Your task to perform on an android device: toggle sleep mode Image 0: 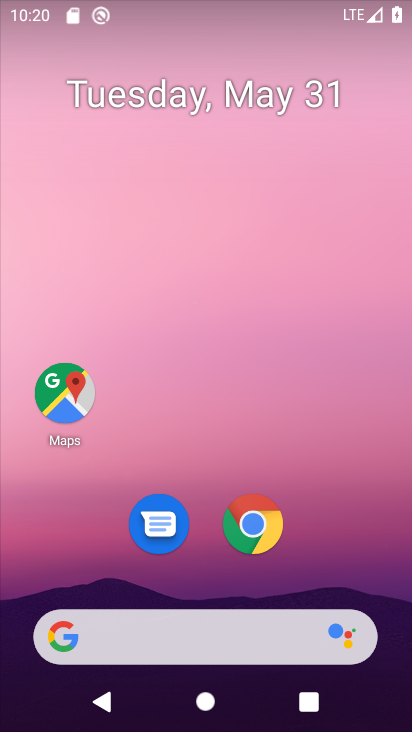
Step 0: drag from (212, 458) to (260, 0)
Your task to perform on an android device: toggle sleep mode Image 1: 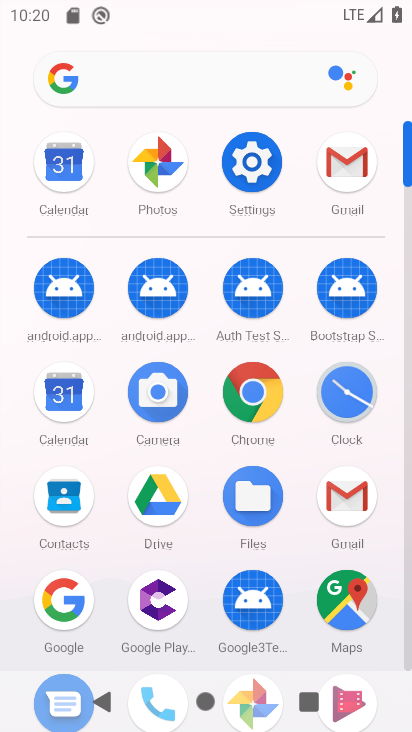
Step 1: click (250, 166)
Your task to perform on an android device: toggle sleep mode Image 2: 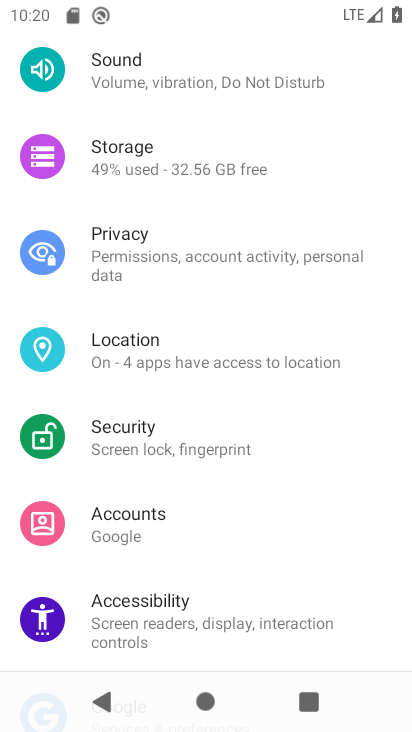
Step 2: drag from (209, 228) to (223, 616)
Your task to perform on an android device: toggle sleep mode Image 3: 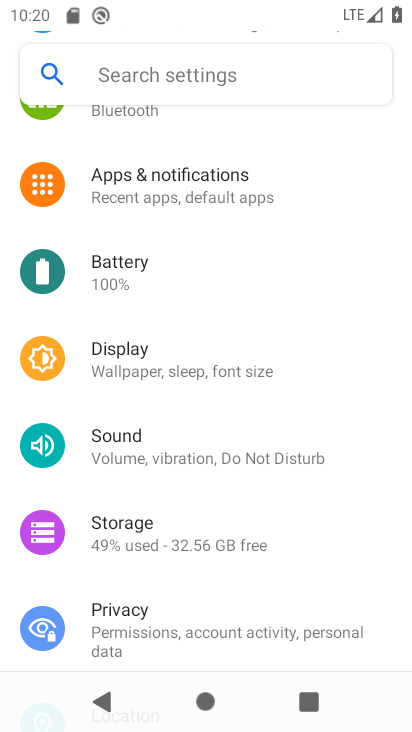
Step 3: drag from (208, 298) to (200, 577)
Your task to perform on an android device: toggle sleep mode Image 4: 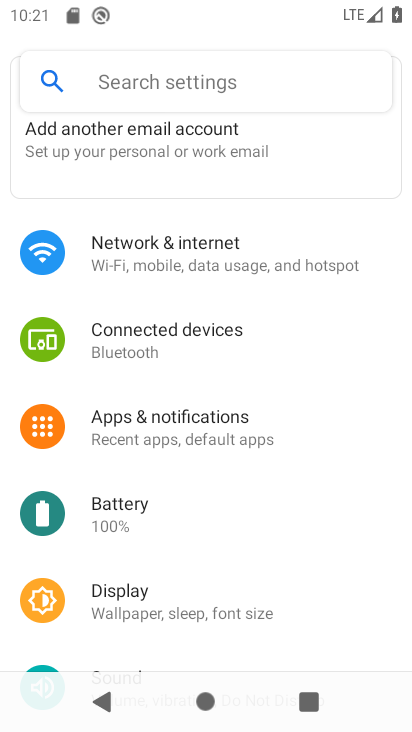
Step 4: drag from (205, 493) to (220, 320)
Your task to perform on an android device: toggle sleep mode Image 5: 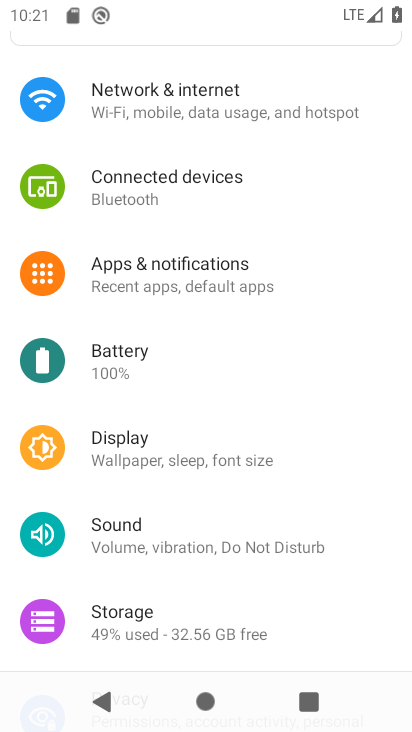
Step 5: click (217, 449)
Your task to perform on an android device: toggle sleep mode Image 6: 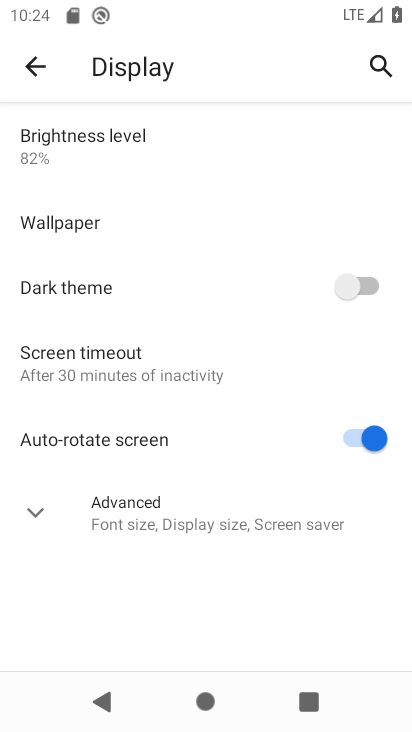
Step 6: task complete